Your task to perform on an android device: Show me popular games on the Play Store Image 0: 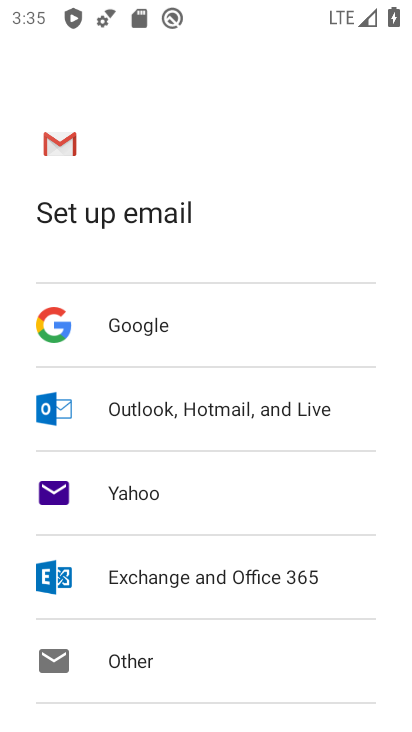
Step 0: press home button
Your task to perform on an android device: Show me popular games on the Play Store Image 1: 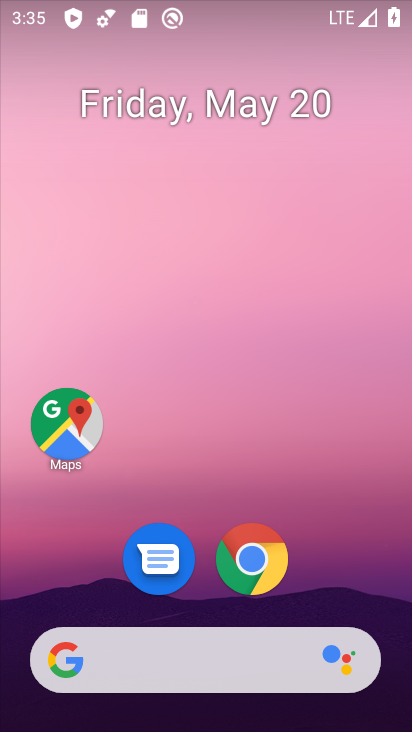
Step 1: drag from (232, 491) to (257, 6)
Your task to perform on an android device: Show me popular games on the Play Store Image 2: 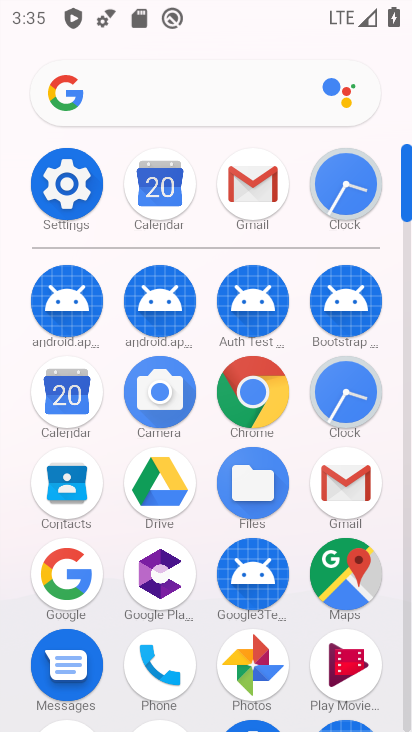
Step 2: drag from (200, 525) to (245, 210)
Your task to perform on an android device: Show me popular games on the Play Store Image 3: 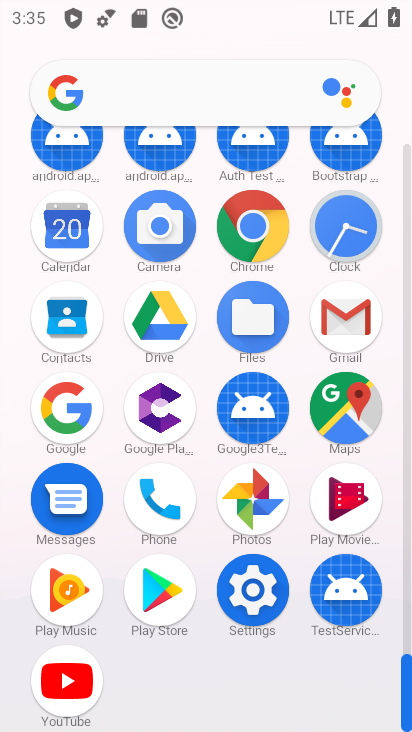
Step 3: click (174, 565)
Your task to perform on an android device: Show me popular games on the Play Store Image 4: 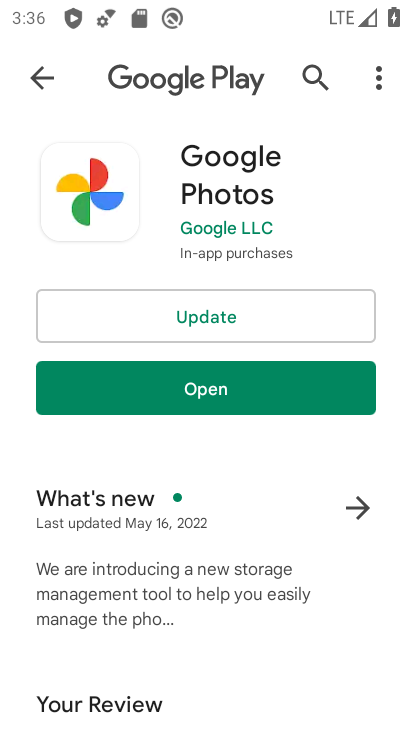
Step 4: click (43, 77)
Your task to perform on an android device: Show me popular games on the Play Store Image 5: 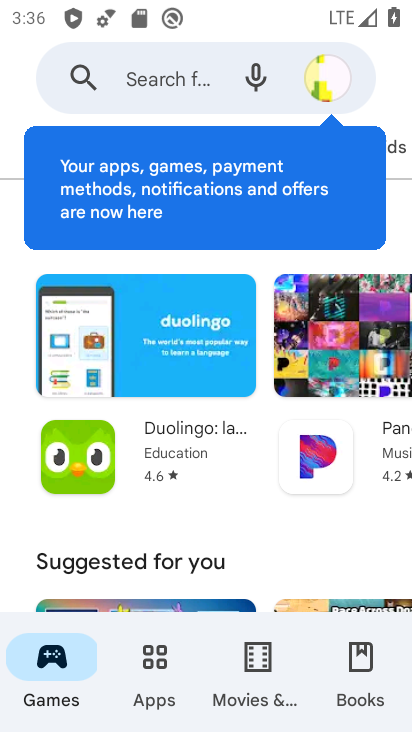
Step 5: click (159, 651)
Your task to perform on an android device: Show me popular games on the Play Store Image 6: 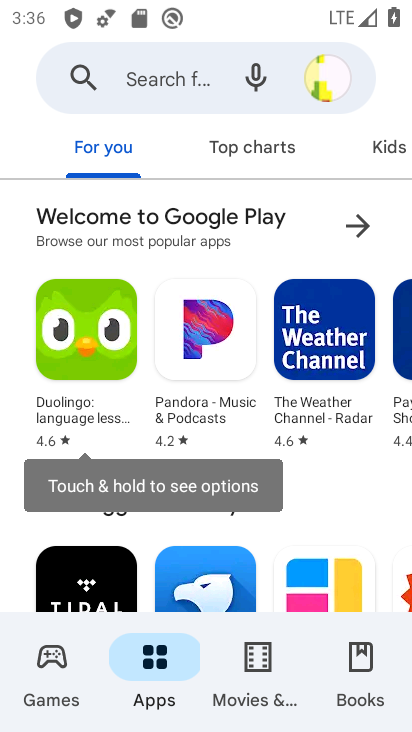
Step 6: click (56, 682)
Your task to perform on an android device: Show me popular games on the Play Store Image 7: 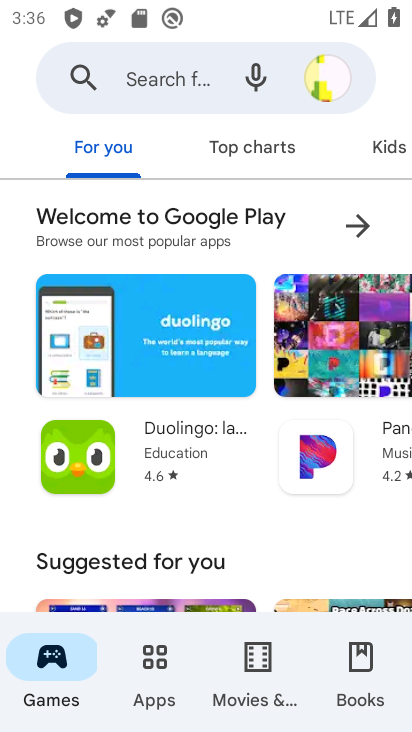
Step 7: drag from (273, 534) to (322, 140)
Your task to perform on an android device: Show me popular games on the Play Store Image 8: 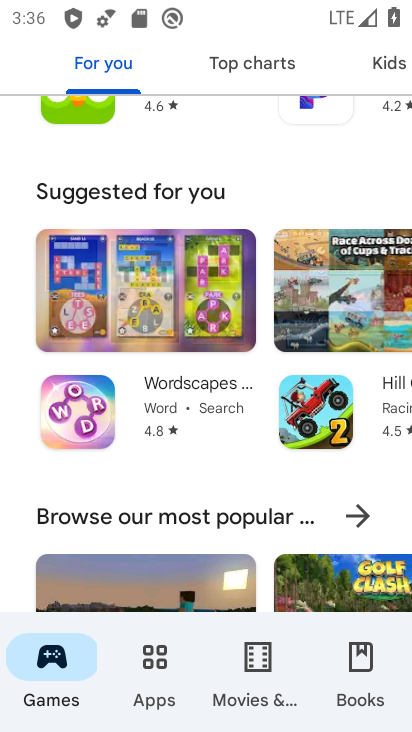
Step 8: click (358, 508)
Your task to perform on an android device: Show me popular games on the Play Store Image 9: 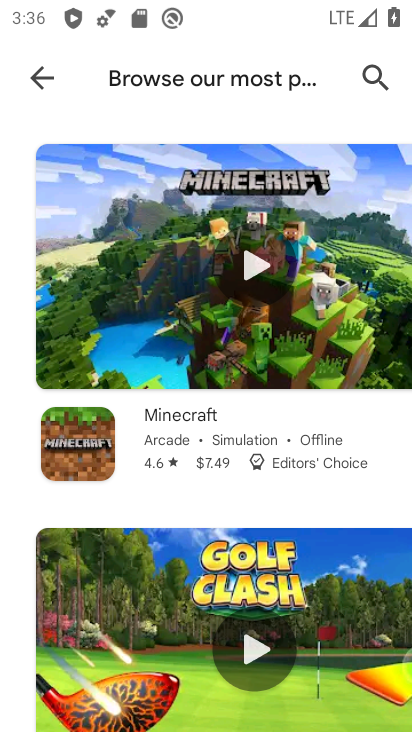
Step 9: task complete